Your task to perform on an android device: Add "usb-a to usb-b" to the cart on costco, then select checkout. Image 0: 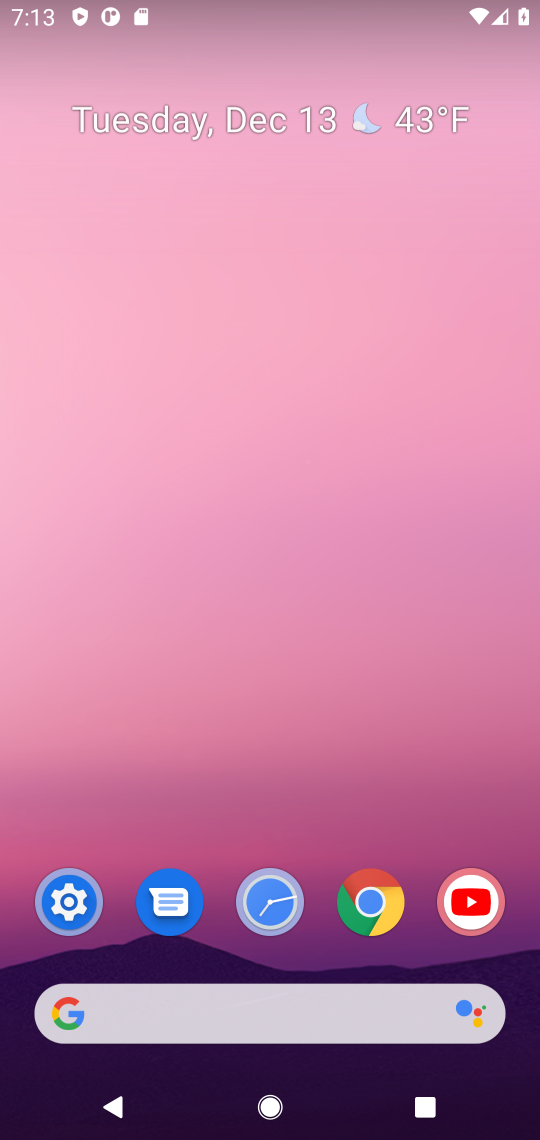
Step 0: click (378, 898)
Your task to perform on an android device: Add "usb-a to usb-b" to the cart on costco, then select checkout. Image 1: 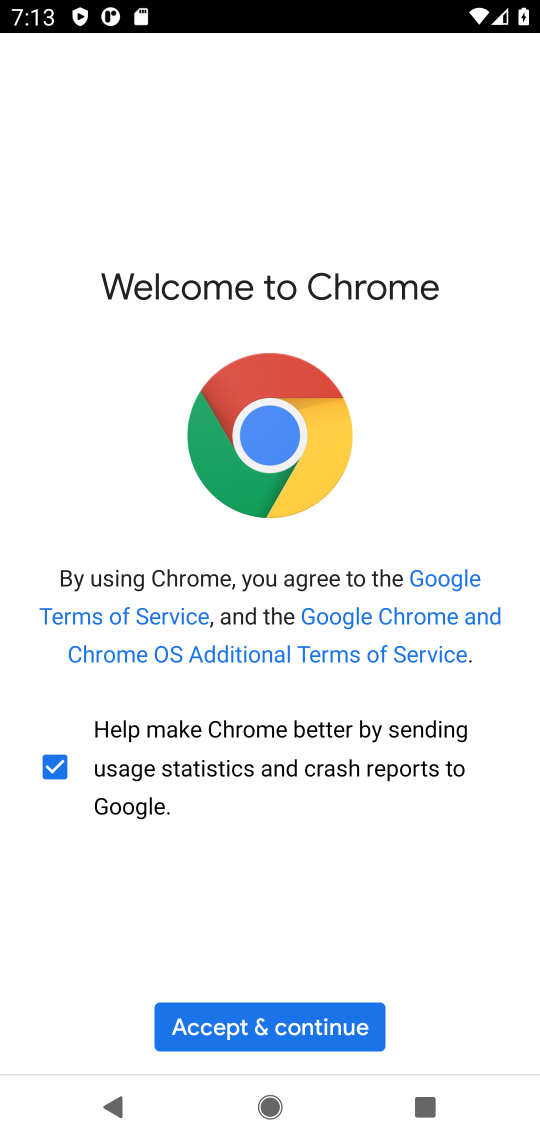
Step 1: click (264, 1030)
Your task to perform on an android device: Add "usb-a to usb-b" to the cart on costco, then select checkout. Image 2: 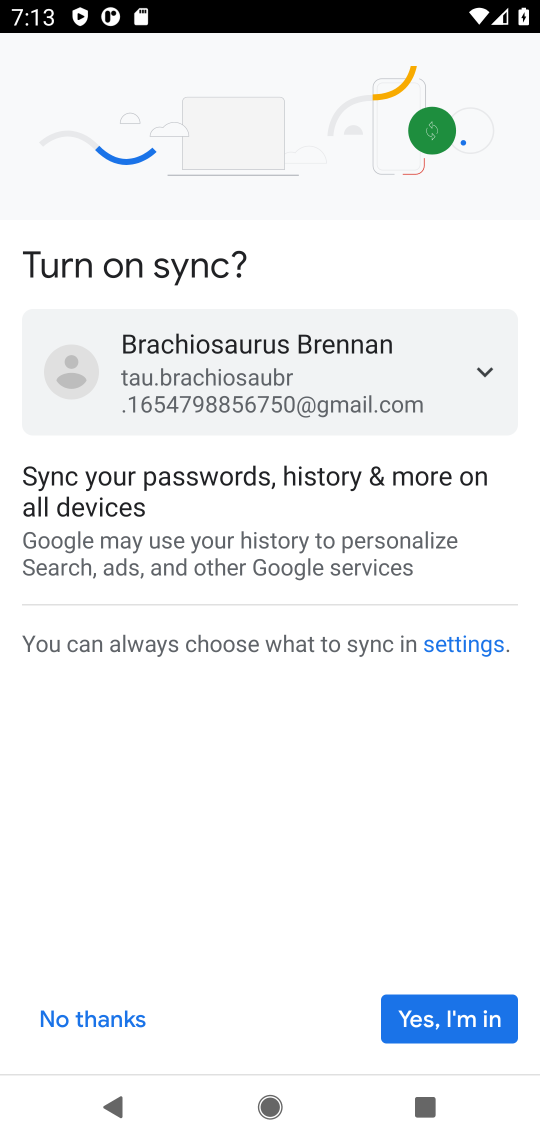
Step 2: click (425, 1013)
Your task to perform on an android device: Add "usb-a to usb-b" to the cart on costco, then select checkout. Image 3: 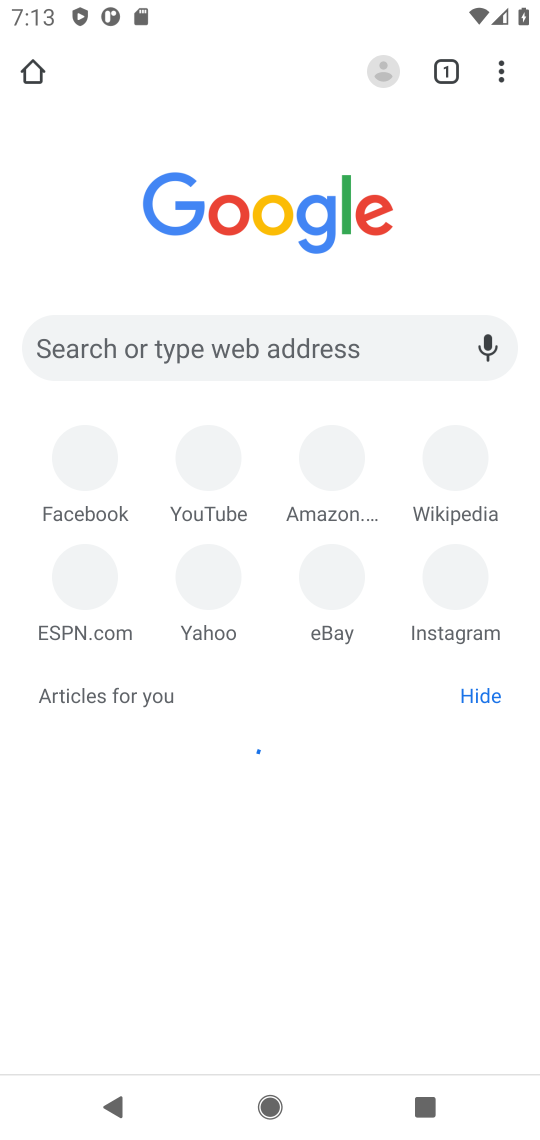
Step 3: click (218, 340)
Your task to perform on an android device: Add "usb-a to usb-b" to the cart on costco, then select checkout. Image 4: 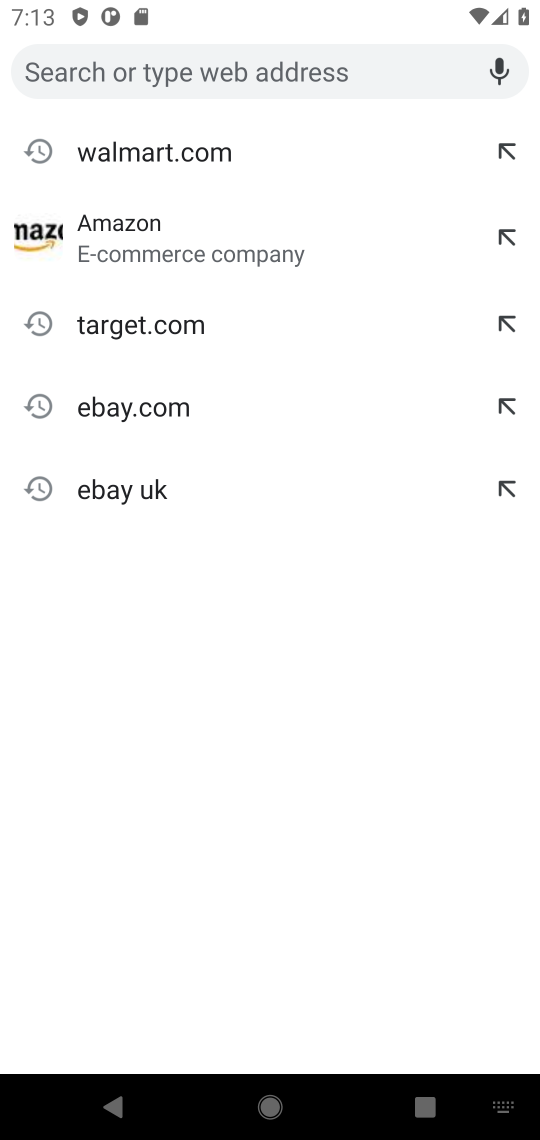
Step 4: type "costco"
Your task to perform on an android device: Add "usb-a to usb-b" to the cart on costco, then select checkout. Image 5: 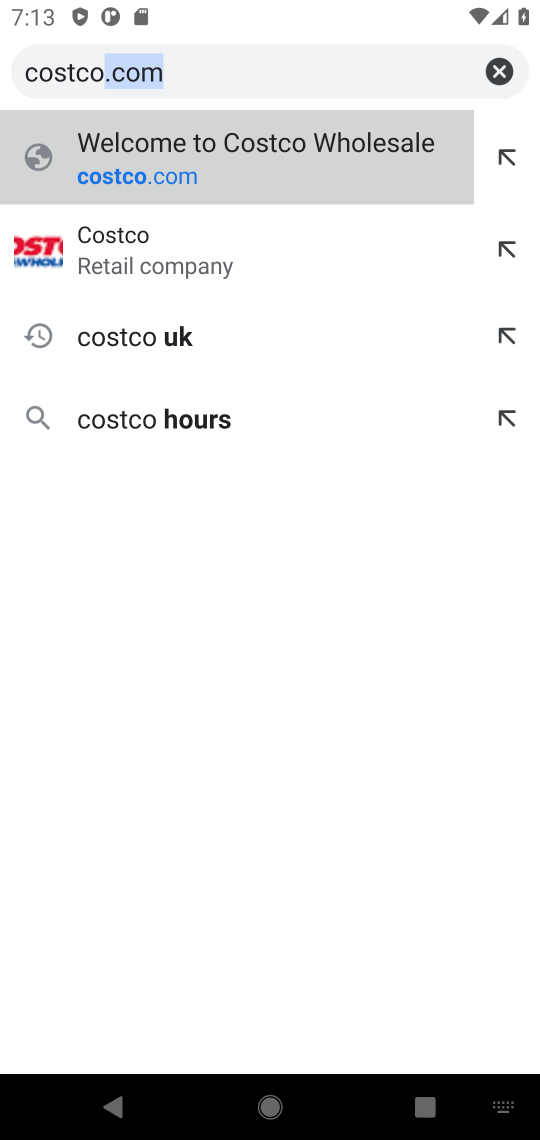
Step 5: click (209, 165)
Your task to perform on an android device: Add "usb-a to usb-b" to the cart on costco, then select checkout. Image 6: 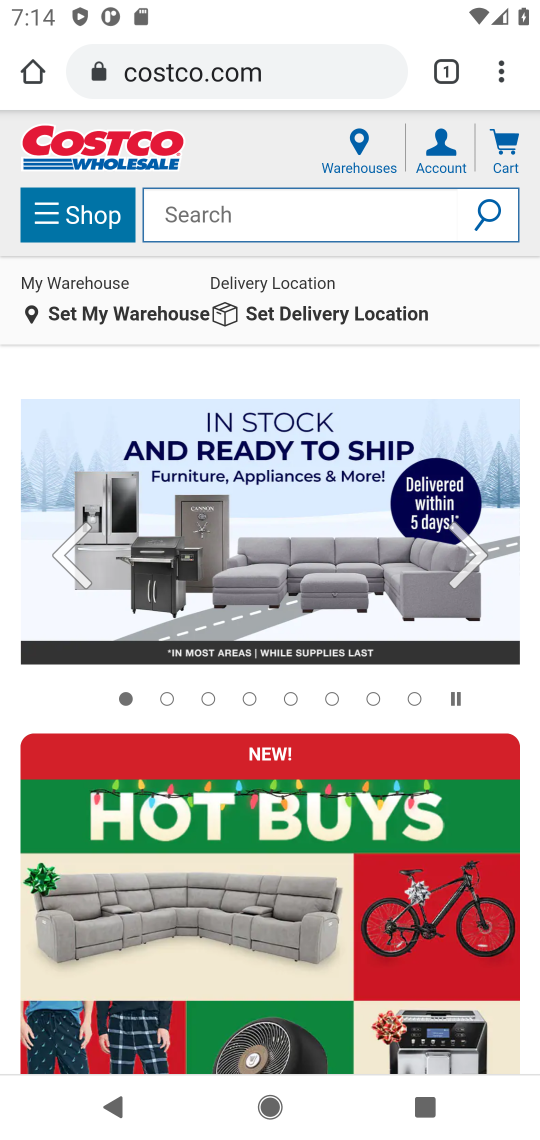
Step 6: click (266, 218)
Your task to perform on an android device: Add "usb-a to usb-b" to the cart on costco, then select checkout. Image 7: 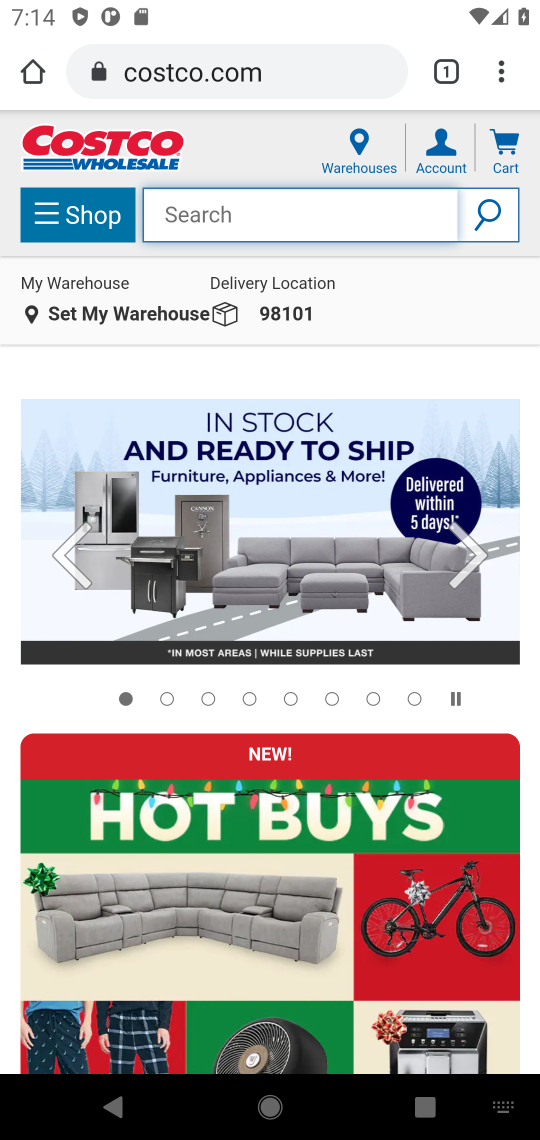
Step 7: click (266, 218)
Your task to perform on an android device: Add "usb-a to usb-b" to the cart on costco, then select checkout. Image 8: 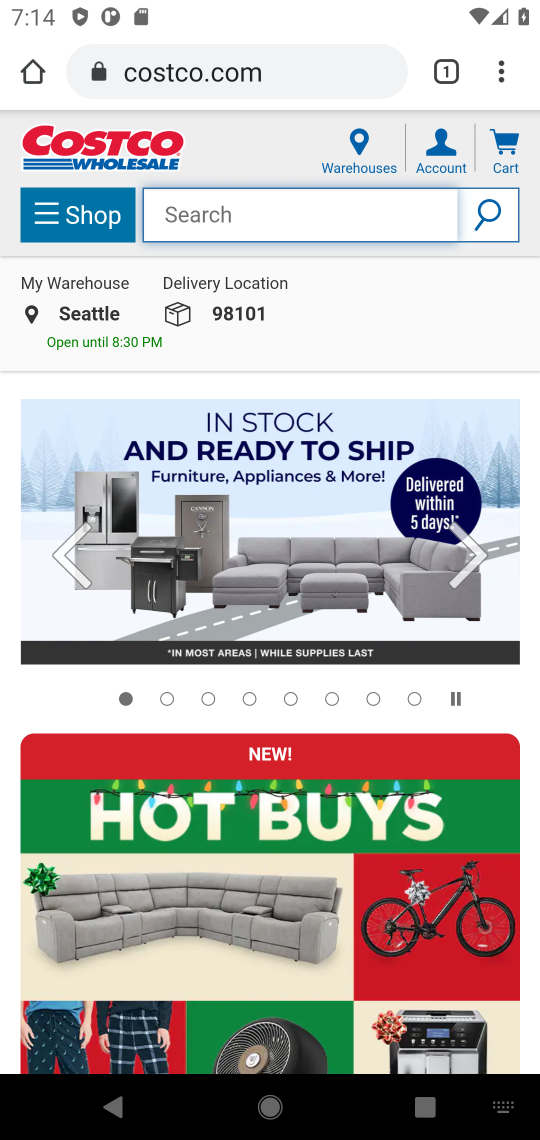
Step 8: type "usb-a to usb-b"
Your task to perform on an android device: Add "usb-a to usb-b" to the cart on costco, then select checkout. Image 9: 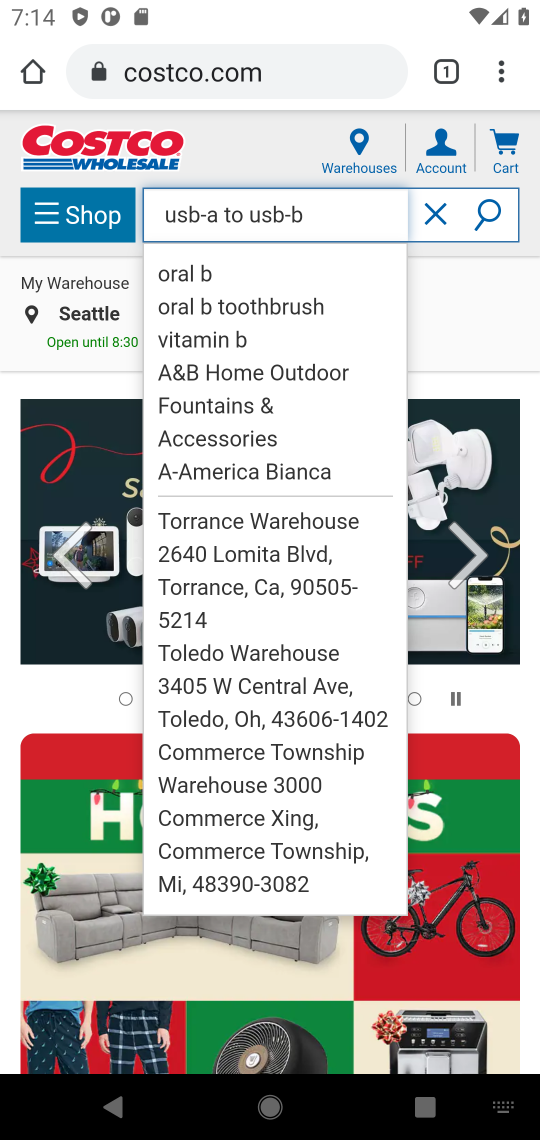
Step 9: click (486, 217)
Your task to perform on an android device: Add "usb-a to usb-b" to the cart on costco, then select checkout. Image 10: 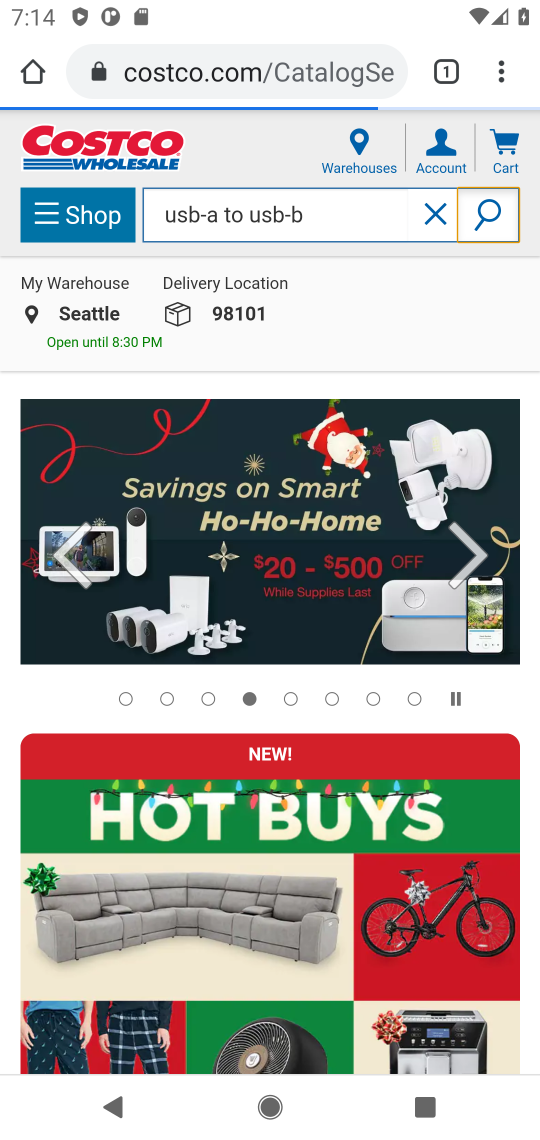
Step 10: click (187, 270)
Your task to perform on an android device: Add "usb-a to usb-b" to the cart on costco, then select checkout. Image 11: 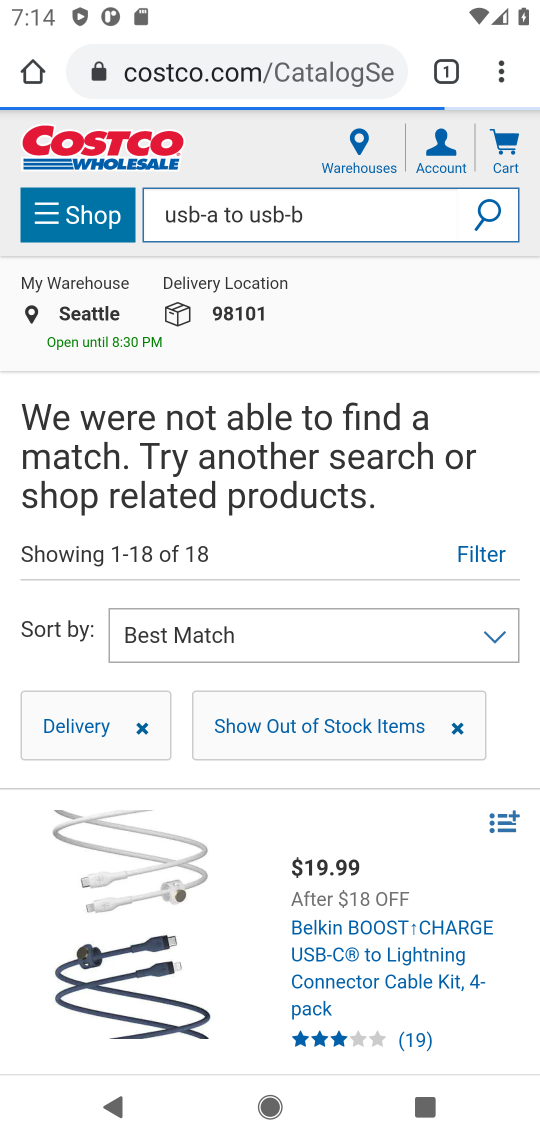
Step 11: click (384, 921)
Your task to perform on an android device: Add "usb-a to usb-b" to the cart on costco, then select checkout. Image 12: 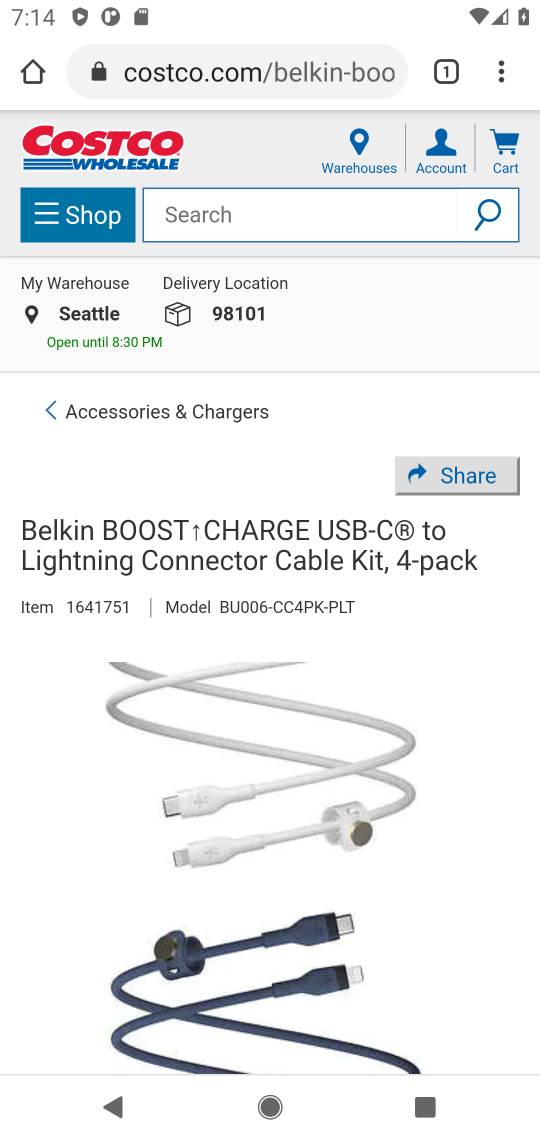
Step 12: drag from (360, 1033) to (361, 292)
Your task to perform on an android device: Add "usb-a to usb-b" to the cart on costco, then select checkout. Image 13: 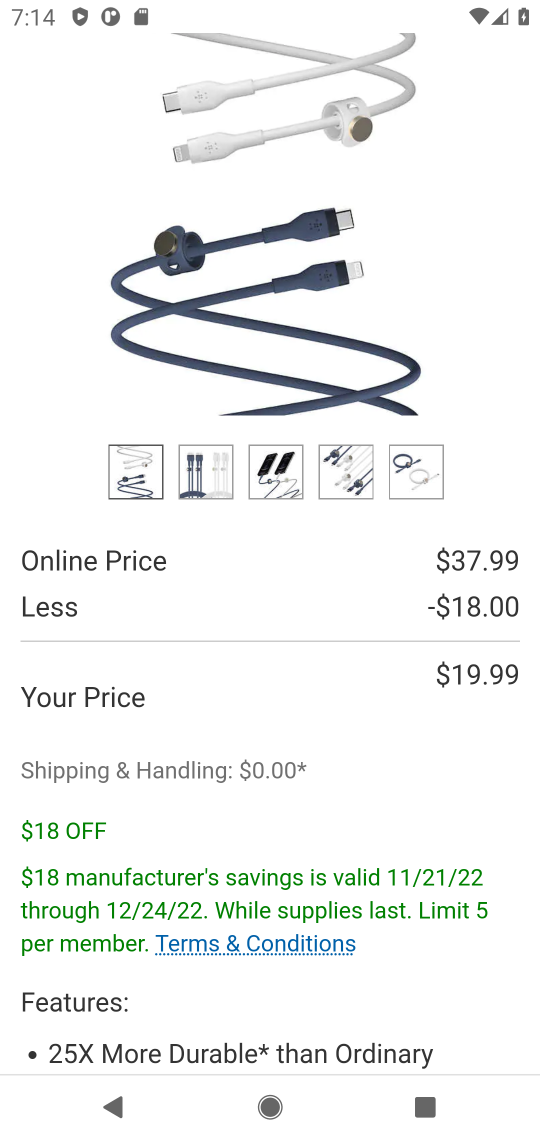
Step 13: drag from (397, 970) to (372, 85)
Your task to perform on an android device: Add "usb-a to usb-b" to the cart on costco, then select checkout. Image 14: 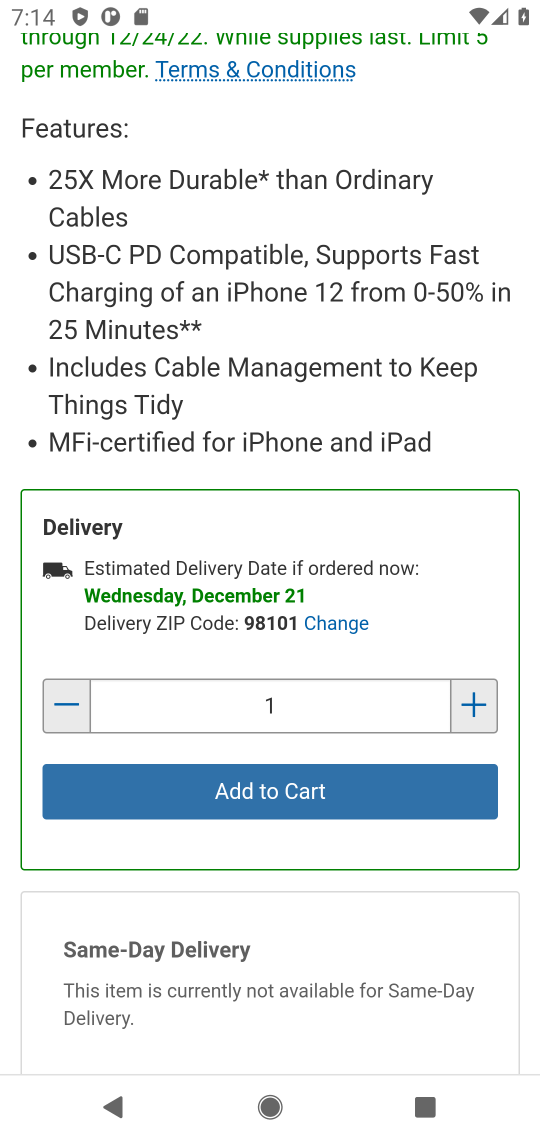
Step 14: click (275, 787)
Your task to perform on an android device: Add "usb-a to usb-b" to the cart on costco, then select checkout. Image 15: 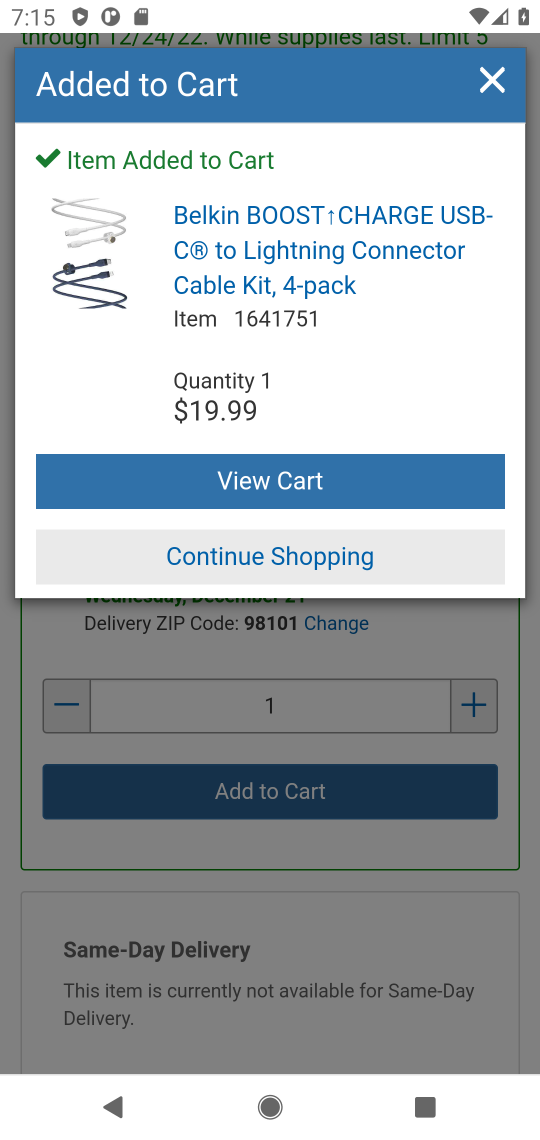
Step 15: click (264, 477)
Your task to perform on an android device: Add "usb-a to usb-b" to the cart on costco, then select checkout. Image 16: 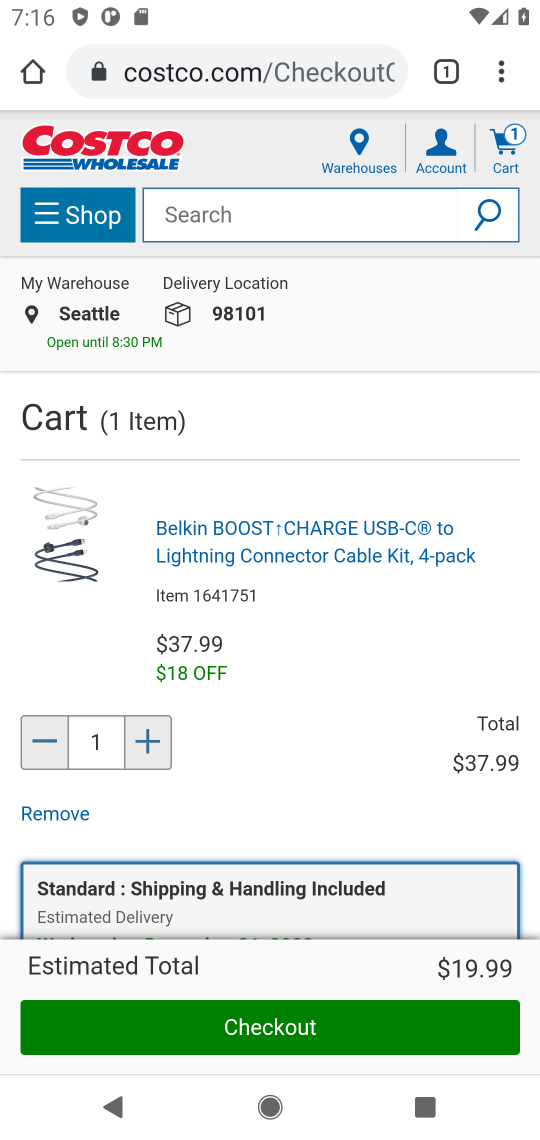
Step 16: click (295, 1030)
Your task to perform on an android device: Add "usb-a to usb-b" to the cart on costco, then select checkout. Image 17: 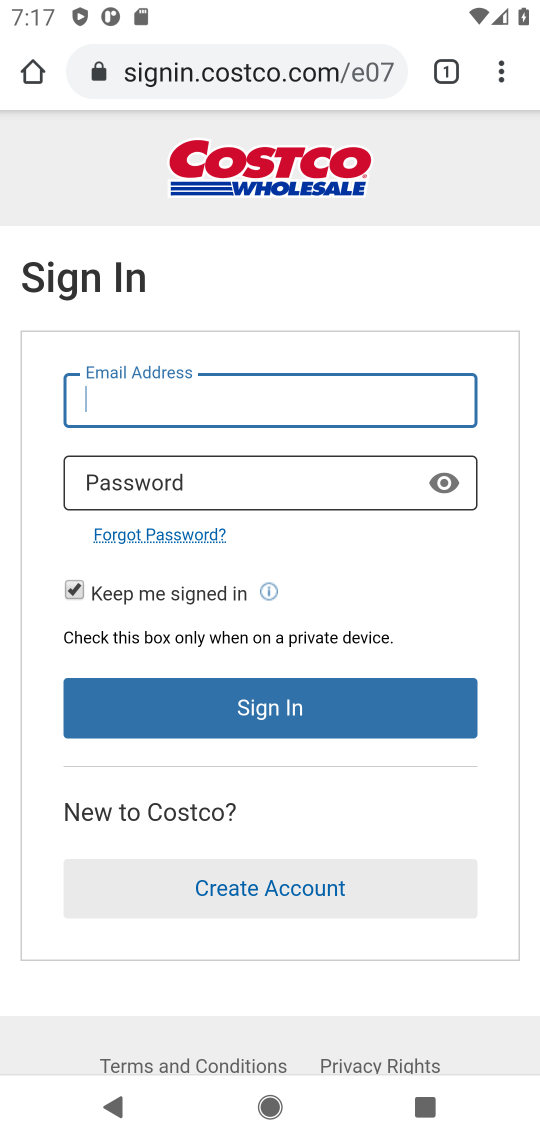
Step 17: task complete